Your task to perform on an android device: Open CNN.com Image 0: 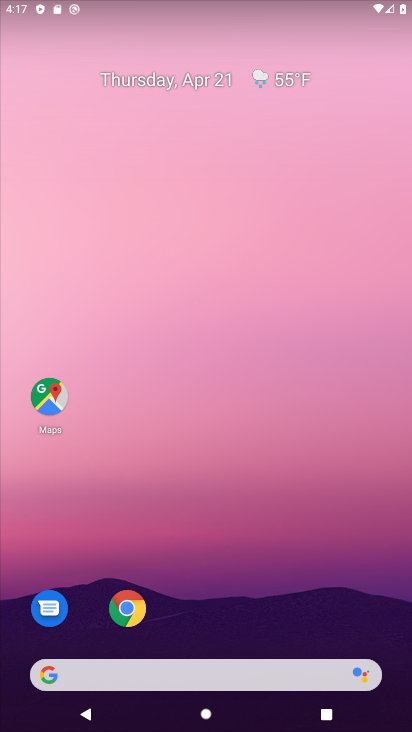
Step 0: click (133, 612)
Your task to perform on an android device: Open CNN.com Image 1: 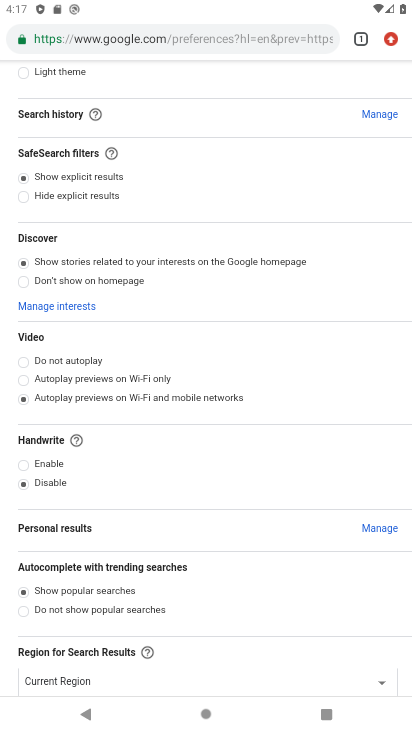
Step 1: click (357, 41)
Your task to perform on an android device: Open CNN.com Image 2: 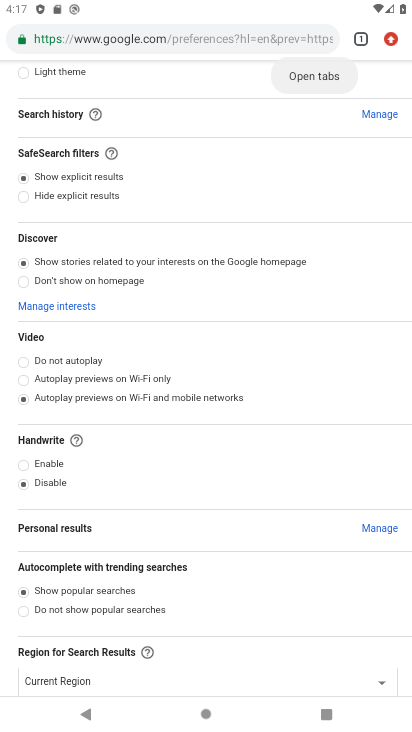
Step 2: click (304, 40)
Your task to perform on an android device: Open CNN.com Image 3: 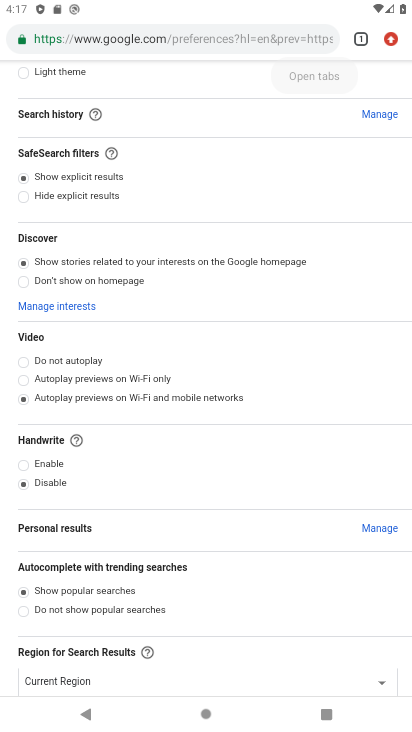
Step 3: click (304, 40)
Your task to perform on an android device: Open CNN.com Image 4: 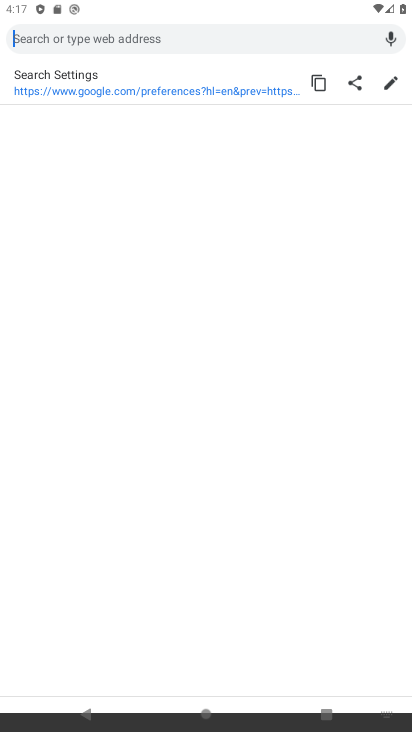
Step 4: click (303, 39)
Your task to perform on an android device: Open CNN.com Image 5: 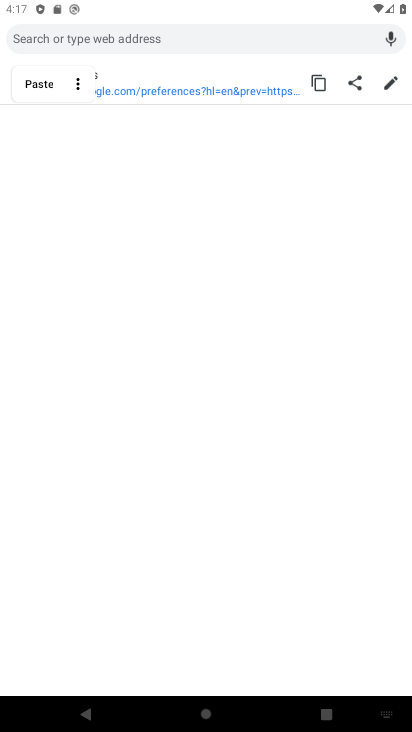
Step 5: type "cnn.com"
Your task to perform on an android device: Open CNN.com Image 6: 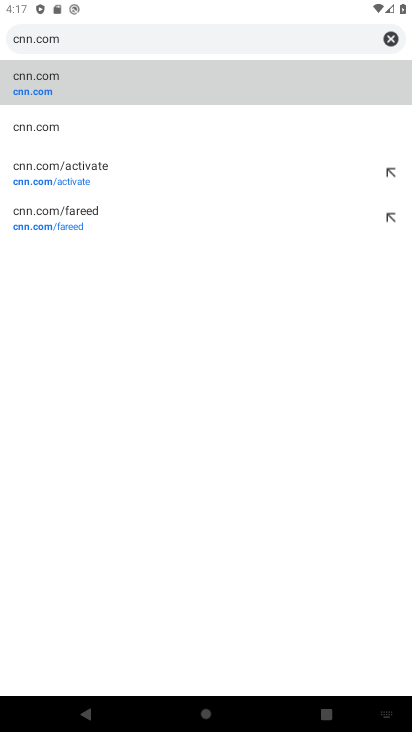
Step 6: task complete